Your task to perform on an android device: change the clock style Image 0: 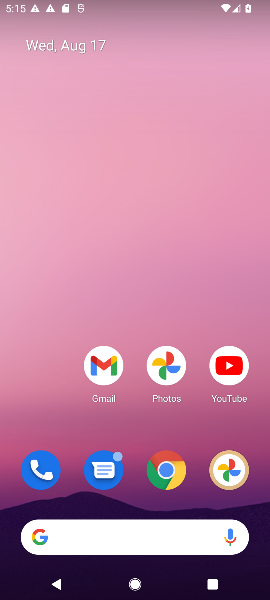
Step 0: drag from (133, 470) to (228, 0)
Your task to perform on an android device: change the clock style Image 1: 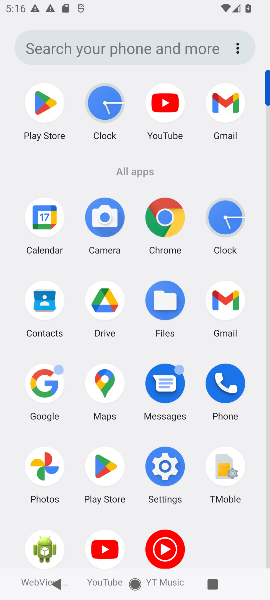
Step 1: click (230, 205)
Your task to perform on an android device: change the clock style Image 2: 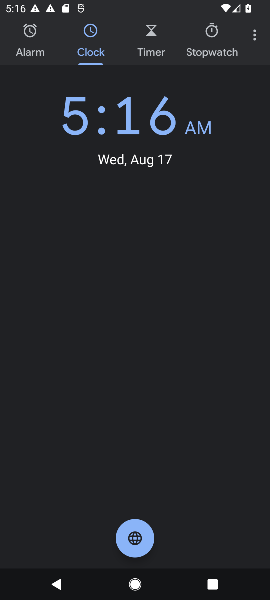
Step 2: click (255, 43)
Your task to perform on an android device: change the clock style Image 3: 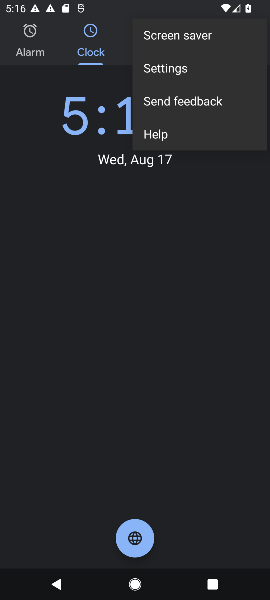
Step 3: click (174, 69)
Your task to perform on an android device: change the clock style Image 4: 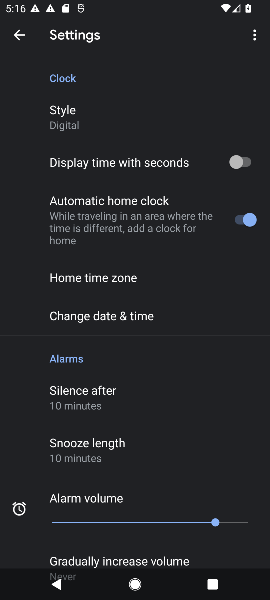
Step 4: click (69, 115)
Your task to perform on an android device: change the clock style Image 5: 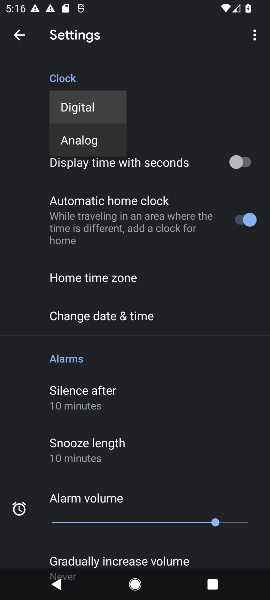
Step 5: click (87, 142)
Your task to perform on an android device: change the clock style Image 6: 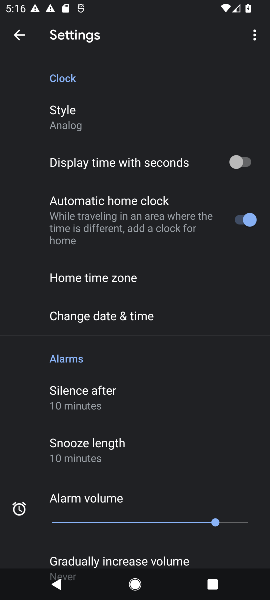
Step 6: task complete